Your task to perform on an android device: Go to privacy settings Image 0: 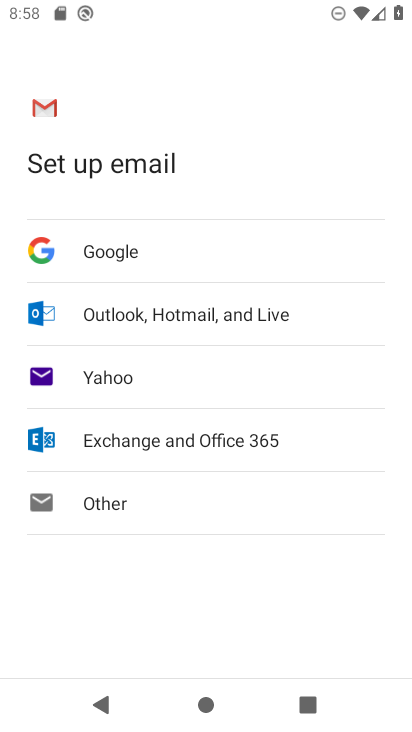
Step 0: press home button
Your task to perform on an android device: Go to privacy settings Image 1: 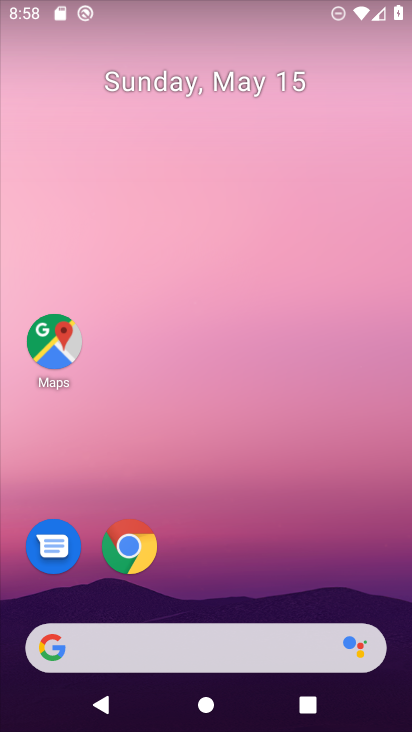
Step 1: drag from (209, 447) to (184, 33)
Your task to perform on an android device: Go to privacy settings Image 2: 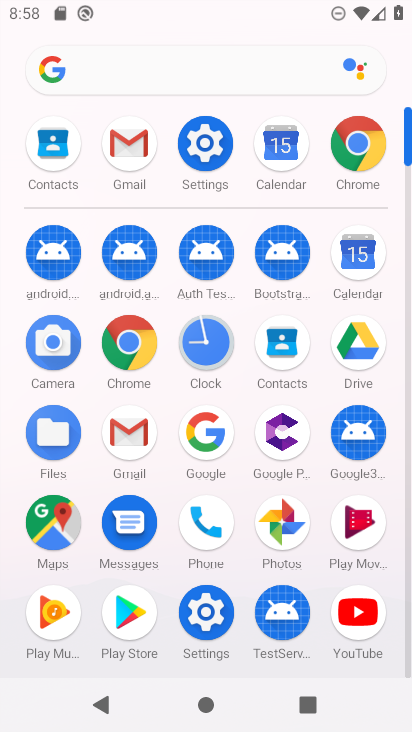
Step 2: click (200, 148)
Your task to perform on an android device: Go to privacy settings Image 3: 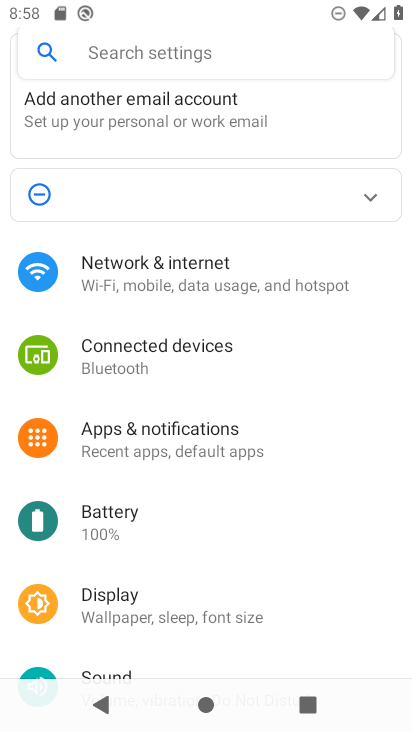
Step 3: drag from (214, 550) to (234, 172)
Your task to perform on an android device: Go to privacy settings Image 4: 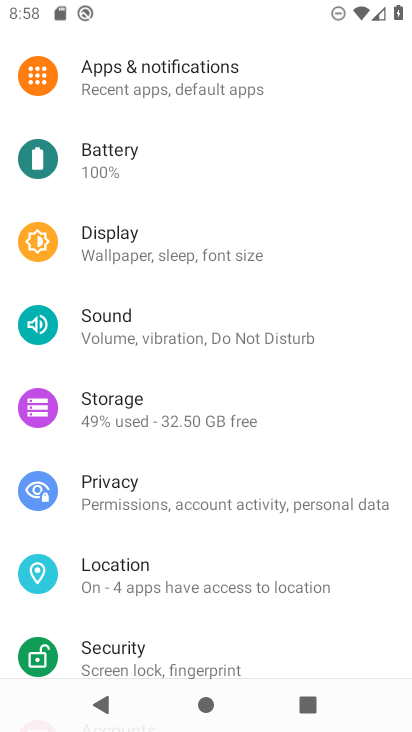
Step 4: click (217, 503)
Your task to perform on an android device: Go to privacy settings Image 5: 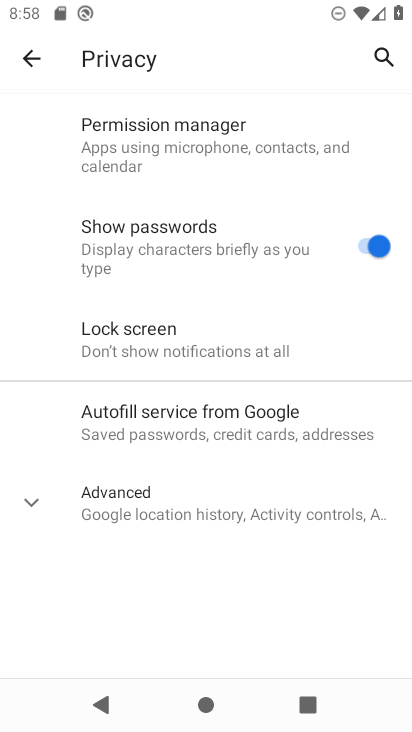
Step 5: task complete